Your task to perform on an android device: Go to eBay Image 0: 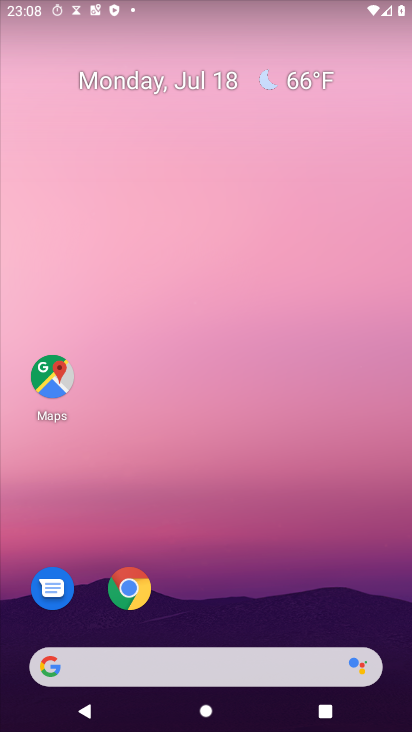
Step 0: press home button
Your task to perform on an android device: Go to eBay Image 1: 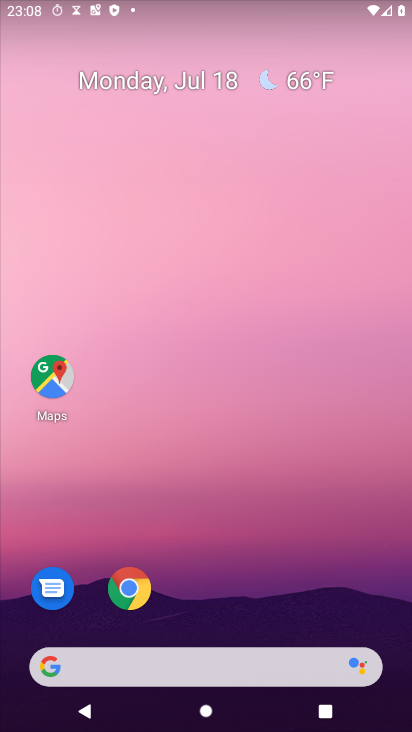
Step 1: click (130, 593)
Your task to perform on an android device: Go to eBay Image 2: 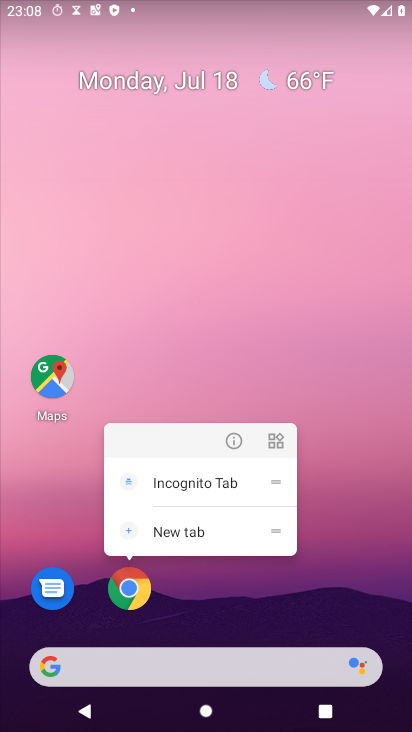
Step 2: click (133, 596)
Your task to perform on an android device: Go to eBay Image 3: 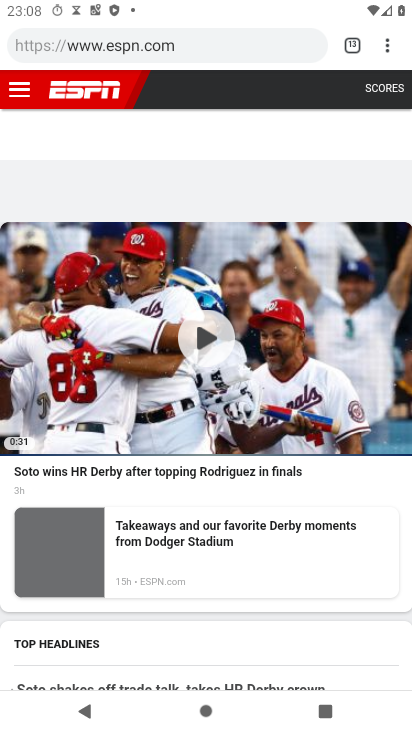
Step 3: drag from (390, 48) to (262, 88)
Your task to perform on an android device: Go to eBay Image 4: 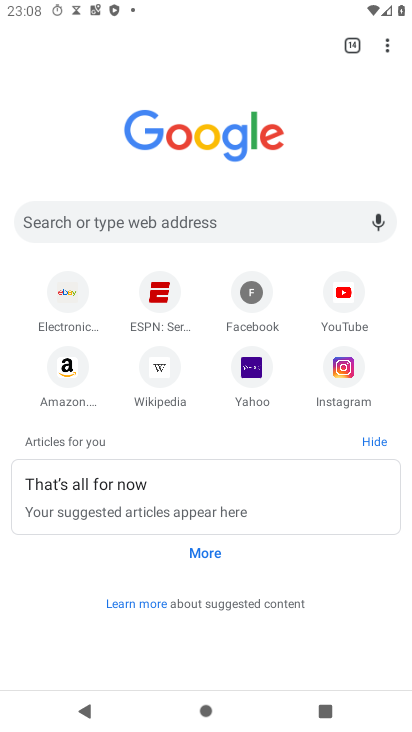
Step 4: click (68, 293)
Your task to perform on an android device: Go to eBay Image 5: 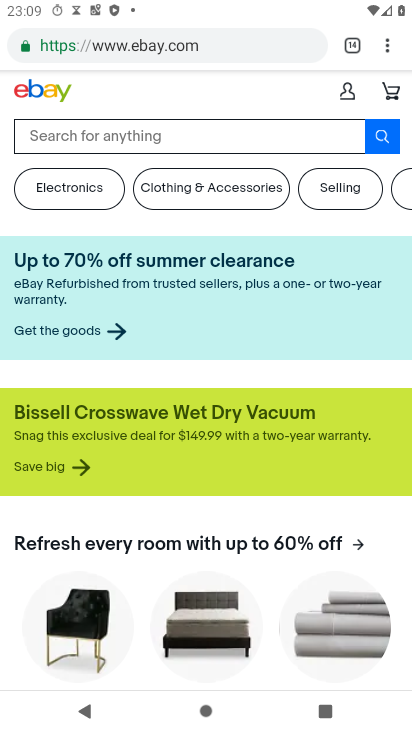
Step 5: task complete